Your task to perform on an android device: Open calendar and show me the third week of next month Image 0: 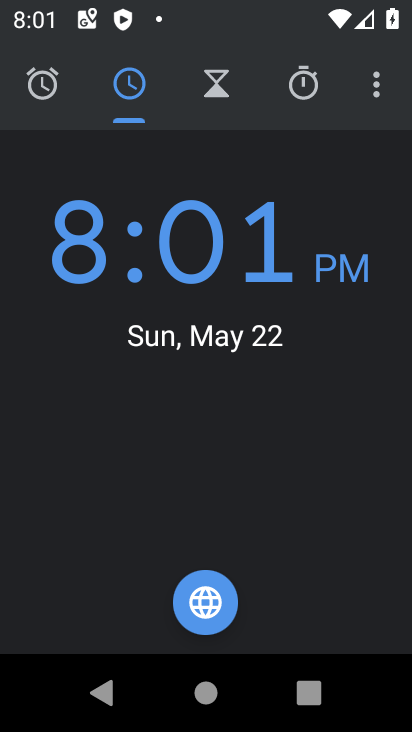
Step 0: press home button
Your task to perform on an android device: Open calendar and show me the third week of next month Image 1: 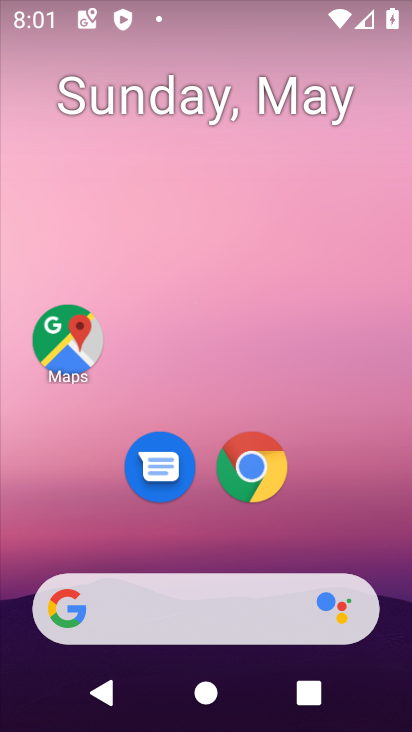
Step 1: drag from (55, 476) to (255, 75)
Your task to perform on an android device: Open calendar and show me the third week of next month Image 2: 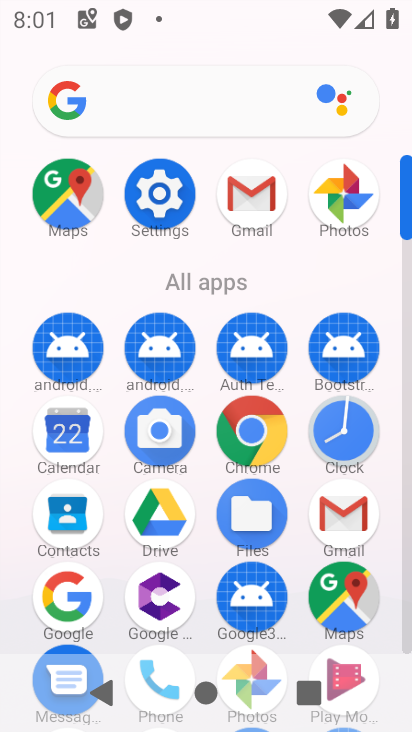
Step 2: click (72, 437)
Your task to perform on an android device: Open calendar and show me the third week of next month Image 3: 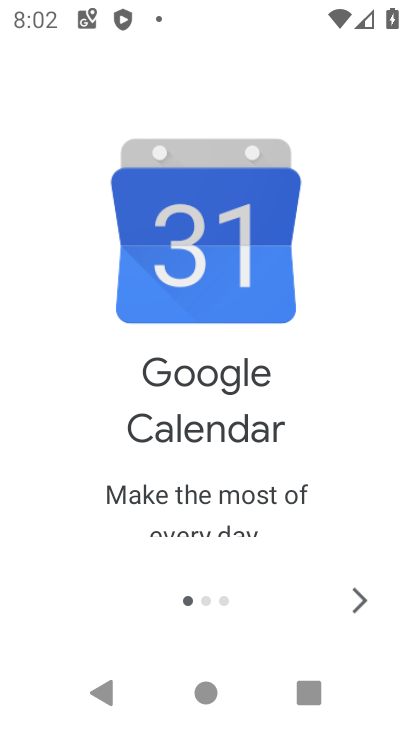
Step 3: click (354, 605)
Your task to perform on an android device: Open calendar and show me the third week of next month Image 4: 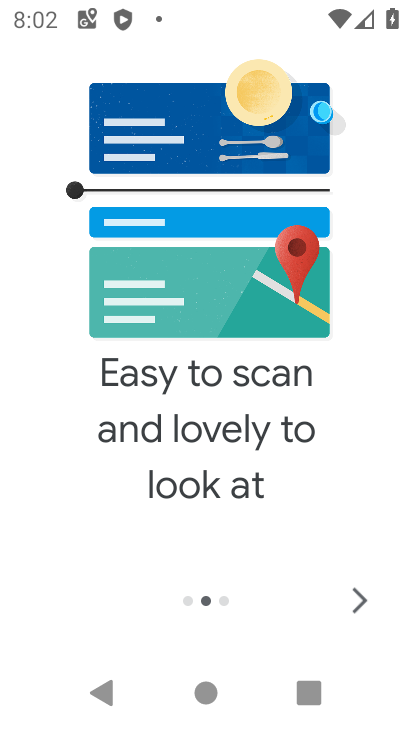
Step 4: click (354, 604)
Your task to perform on an android device: Open calendar and show me the third week of next month Image 5: 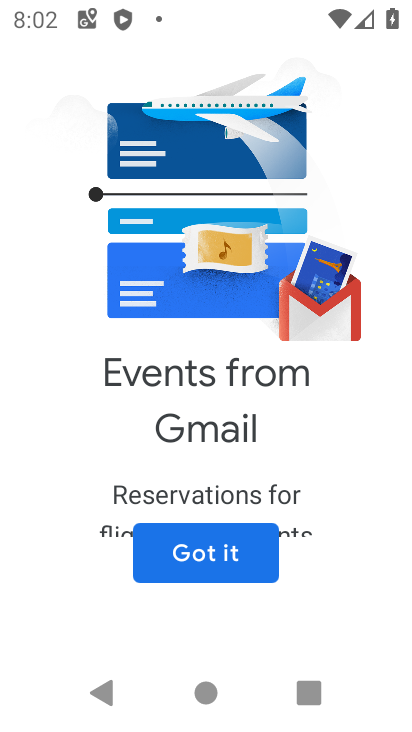
Step 5: click (186, 556)
Your task to perform on an android device: Open calendar and show me the third week of next month Image 6: 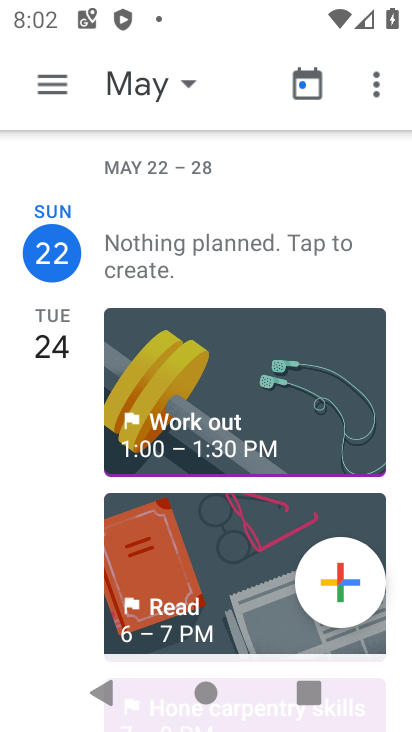
Step 6: click (162, 77)
Your task to perform on an android device: Open calendar and show me the third week of next month Image 7: 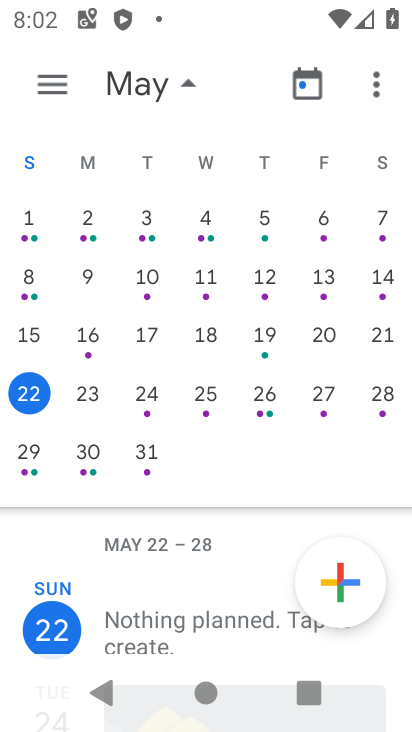
Step 7: drag from (387, 319) to (11, 269)
Your task to perform on an android device: Open calendar and show me the third week of next month Image 8: 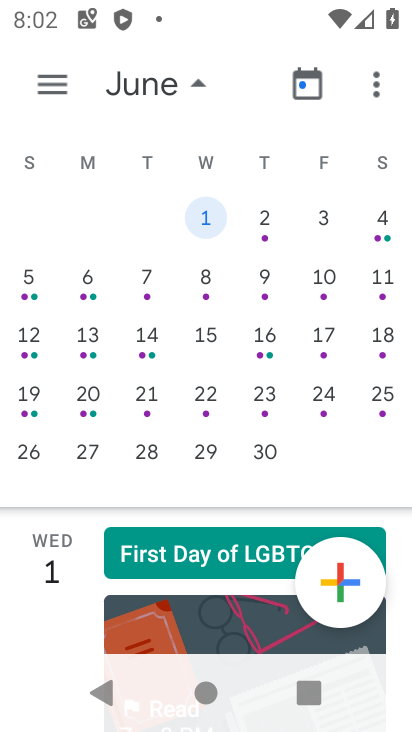
Step 8: click (213, 281)
Your task to perform on an android device: Open calendar and show me the third week of next month Image 9: 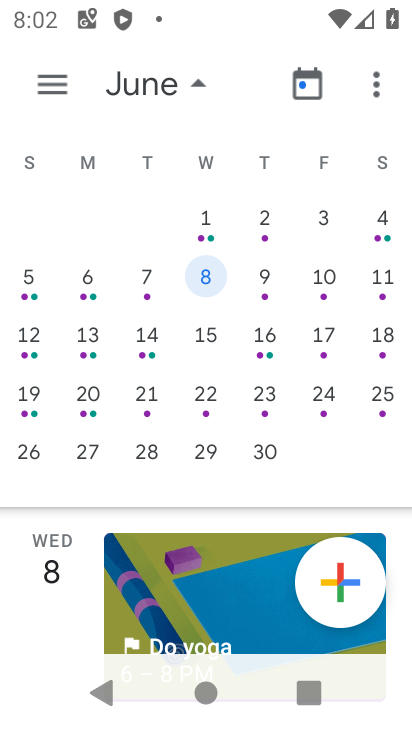
Step 9: click (199, 334)
Your task to perform on an android device: Open calendar and show me the third week of next month Image 10: 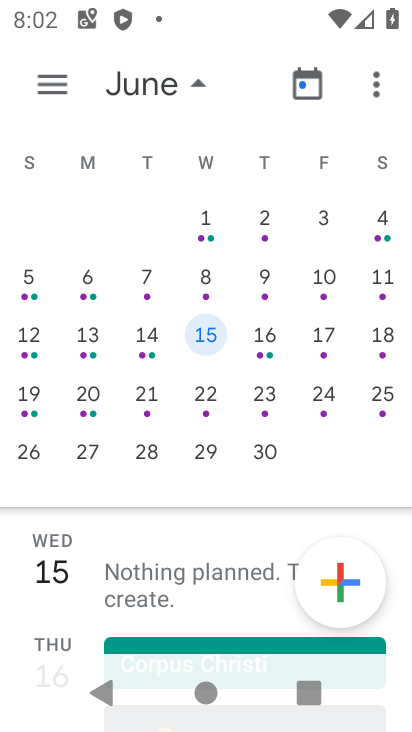
Step 10: task complete